Your task to perform on an android device: Open internet settings Image 0: 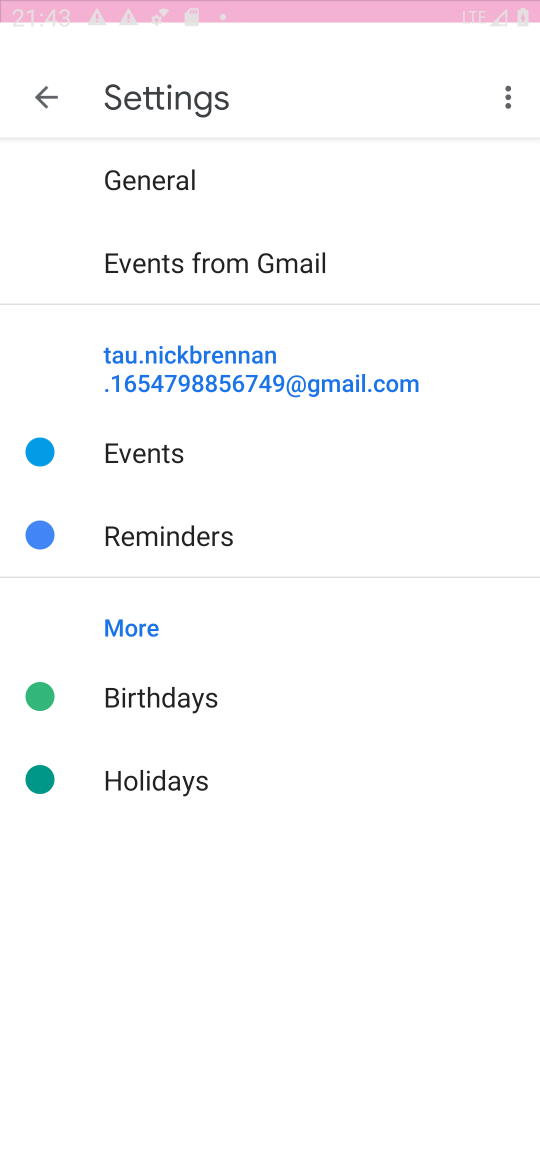
Step 0: press home button
Your task to perform on an android device: Open internet settings Image 1: 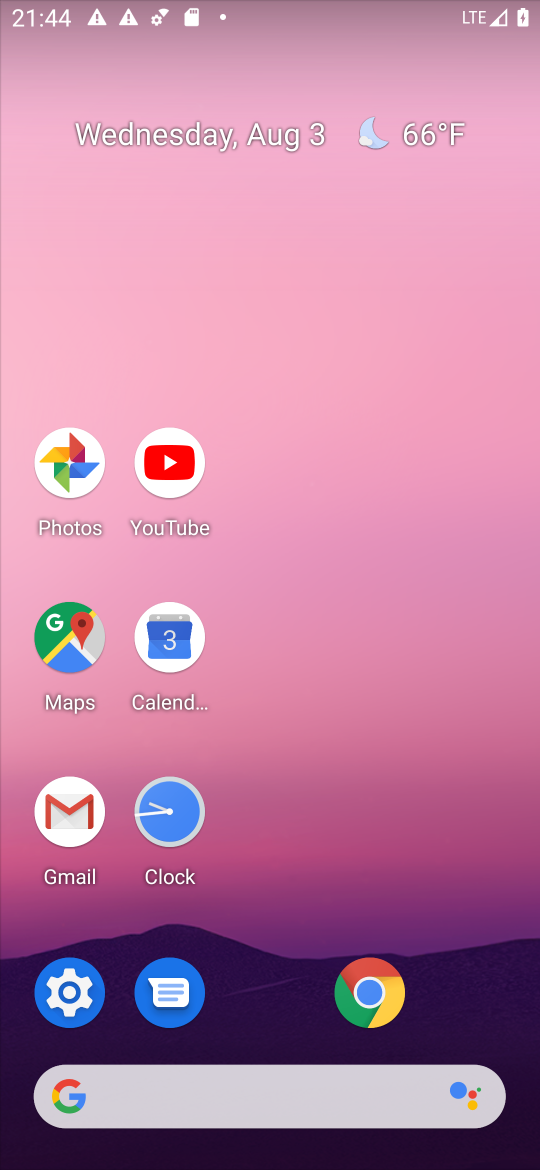
Step 1: click (72, 994)
Your task to perform on an android device: Open internet settings Image 2: 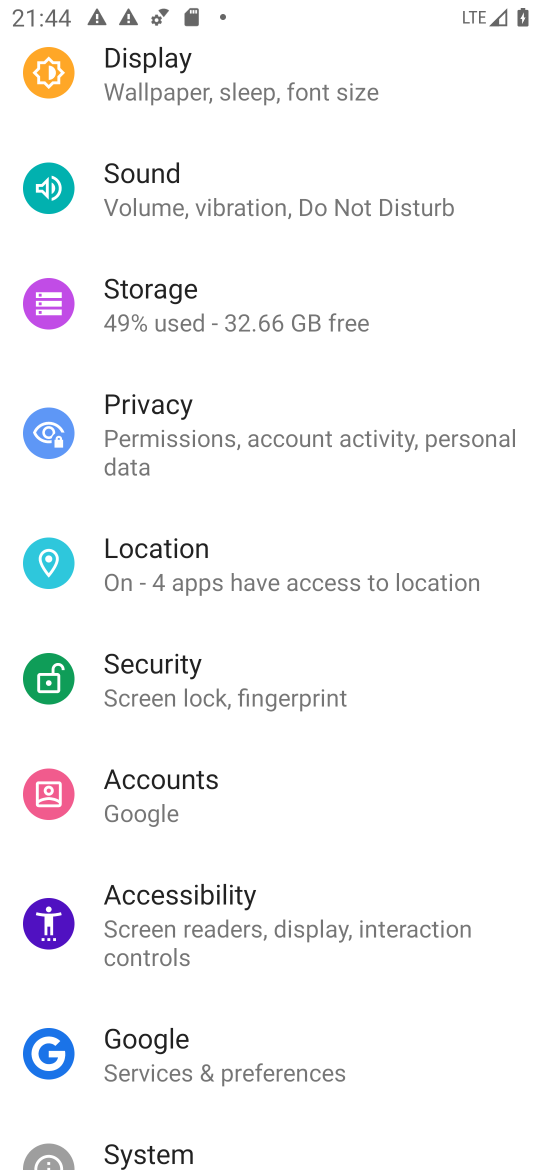
Step 2: drag from (304, 261) to (200, 942)
Your task to perform on an android device: Open internet settings Image 3: 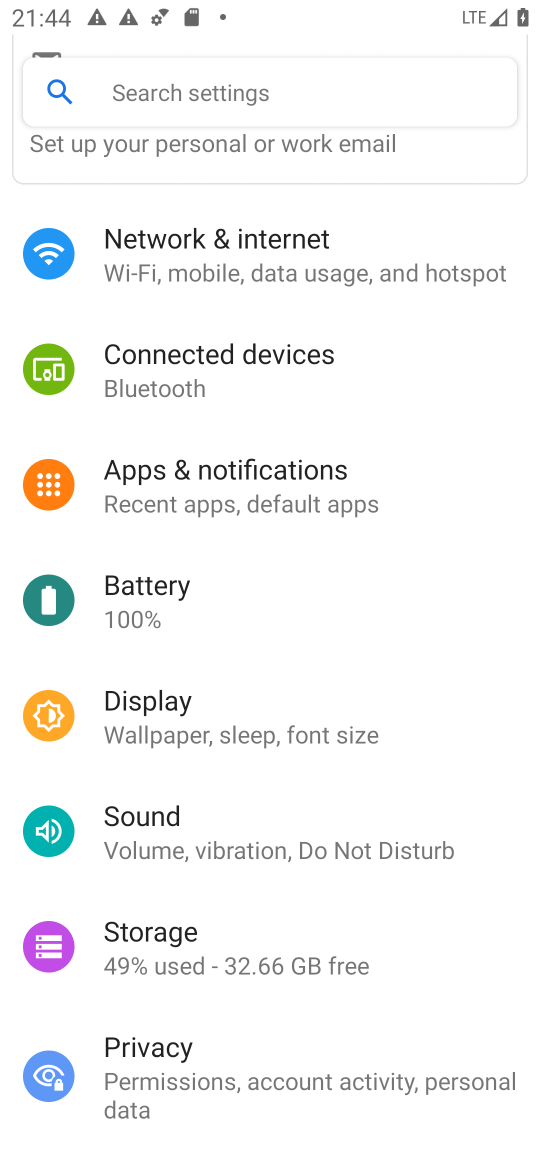
Step 3: click (209, 243)
Your task to perform on an android device: Open internet settings Image 4: 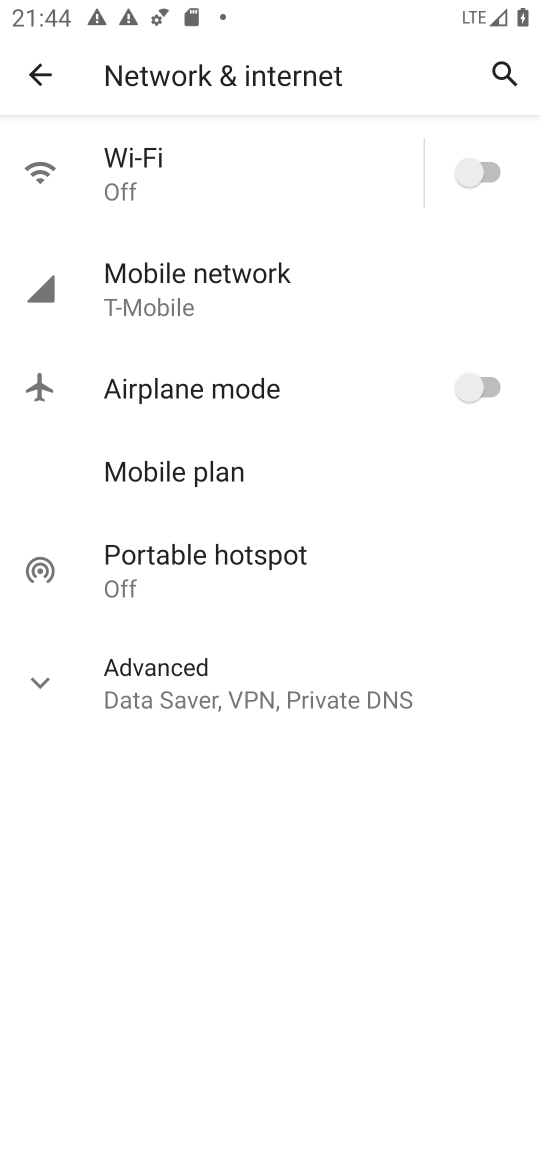
Step 4: task complete